Your task to perform on an android device: Show me popular games on the Play Store Image 0: 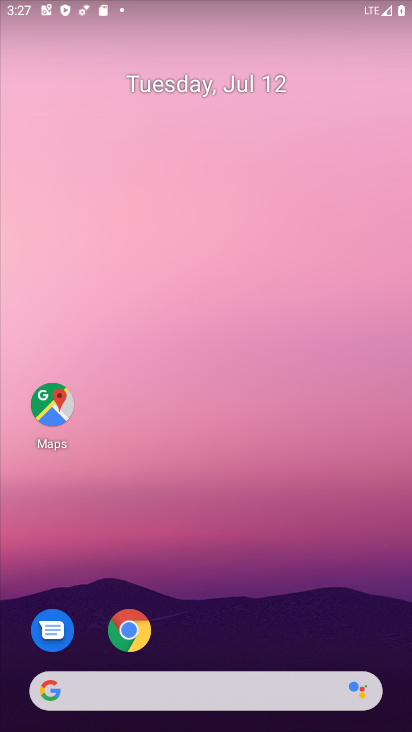
Step 0: drag from (341, 681) to (394, 47)
Your task to perform on an android device: Show me popular games on the Play Store Image 1: 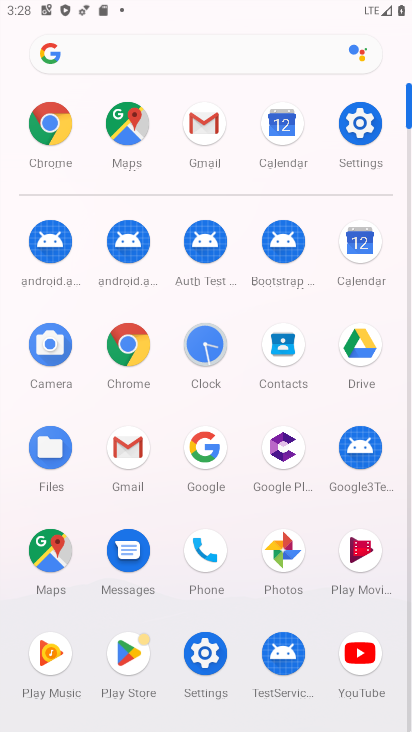
Step 1: click (129, 647)
Your task to perform on an android device: Show me popular games on the Play Store Image 2: 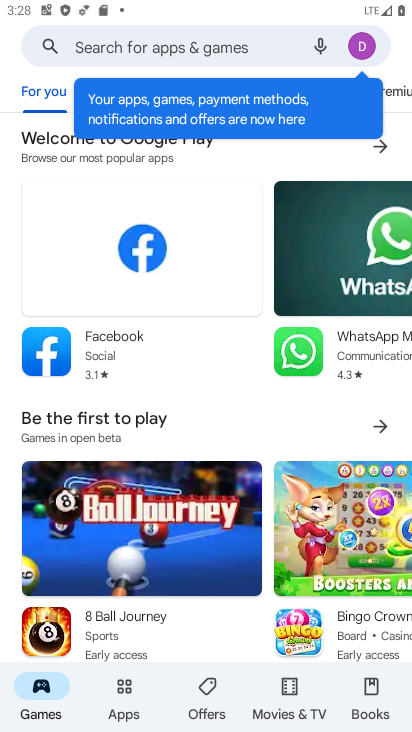
Step 2: drag from (167, 629) to (192, 114)
Your task to perform on an android device: Show me popular games on the Play Store Image 3: 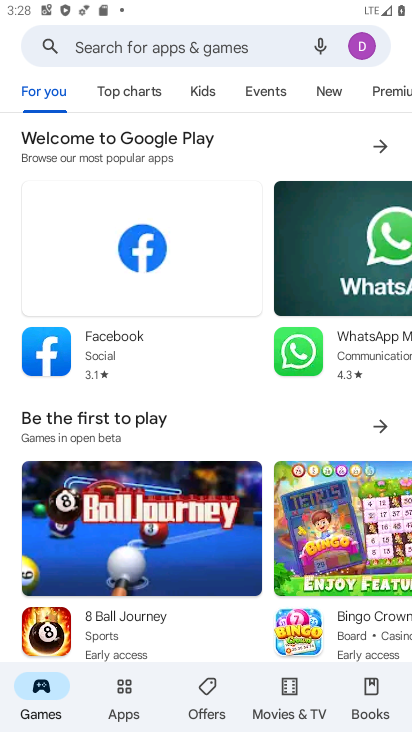
Step 3: drag from (243, 601) to (238, 100)
Your task to perform on an android device: Show me popular games on the Play Store Image 4: 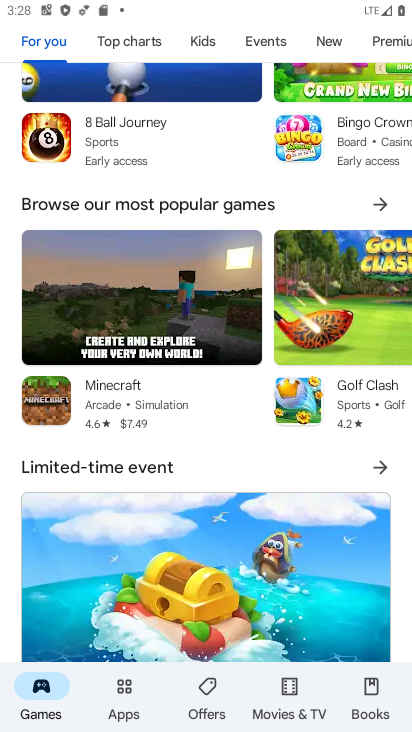
Step 4: click (371, 202)
Your task to perform on an android device: Show me popular games on the Play Store Image 5: 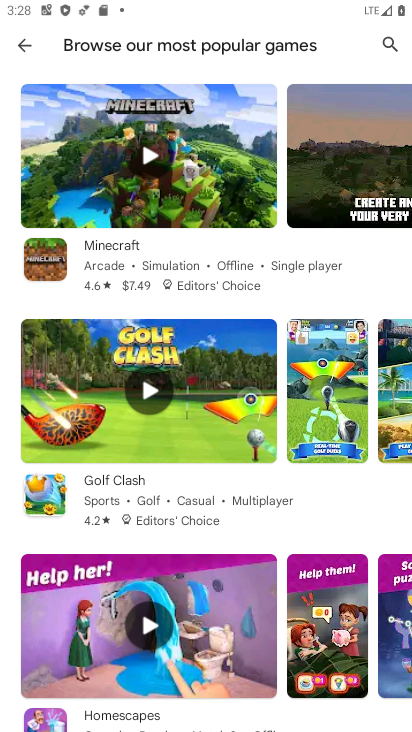
Step 5: task complete